Your task to perform on an android device: turn on showing notifications on the lock screen Image 0: 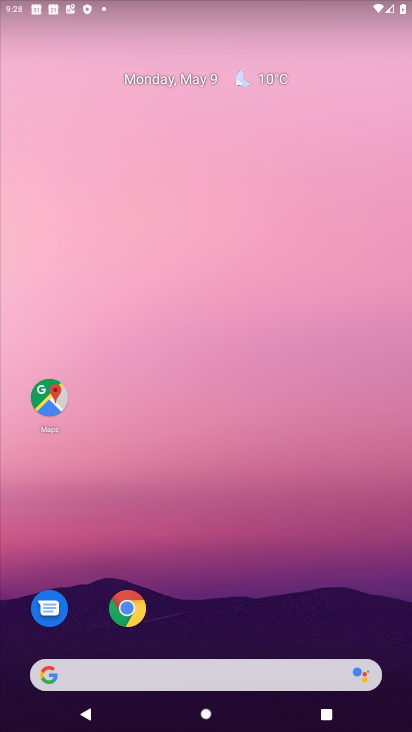
Step 0: drag from (369, 557) to (391, 68)
Your task to perform on an android device: turn on showing notifications on the lock screen Image 1: 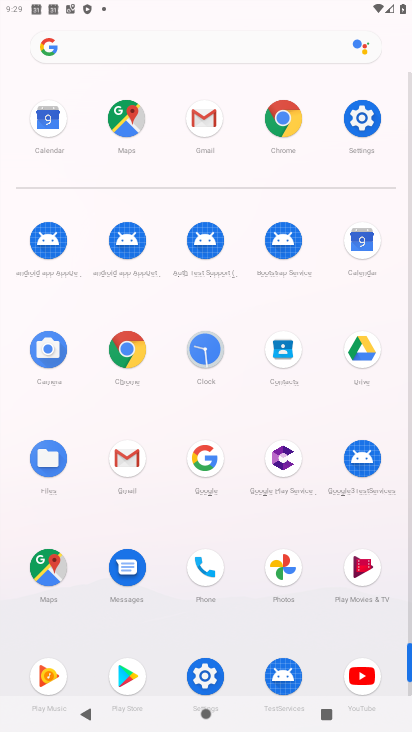
Step 1: click (351, 127)
Your task to perform on an android device: turn on showing notifications on the lock screen Image 2: 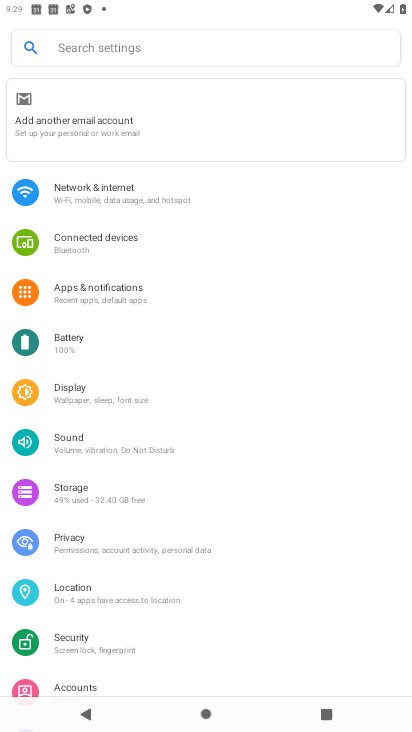
Step 2: click (104, 292)
Your task to perform on an android device: turn on showing notifications on the lock screen Image 3: 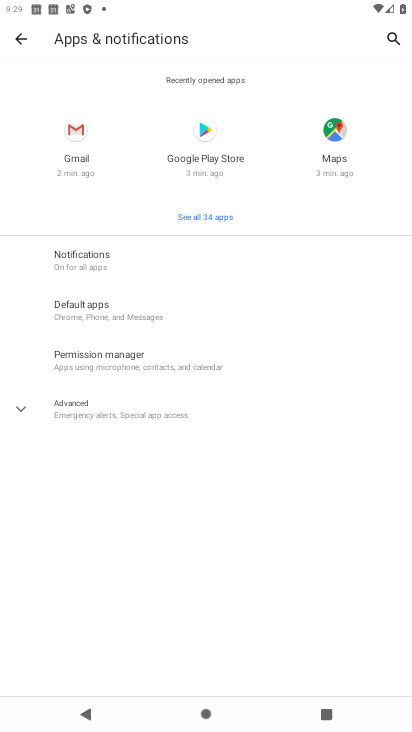
Step 3: click (84, 265)
Your task to perform on an android device: turn on showing notifications on the lock screen Image 4: 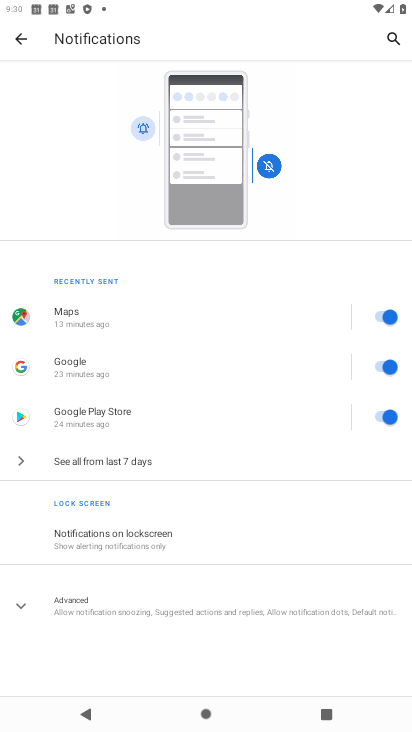
Step 4: click (96, 546)
Your task to perform on an android device: turn on showing notifications on the lock screen Image 5: 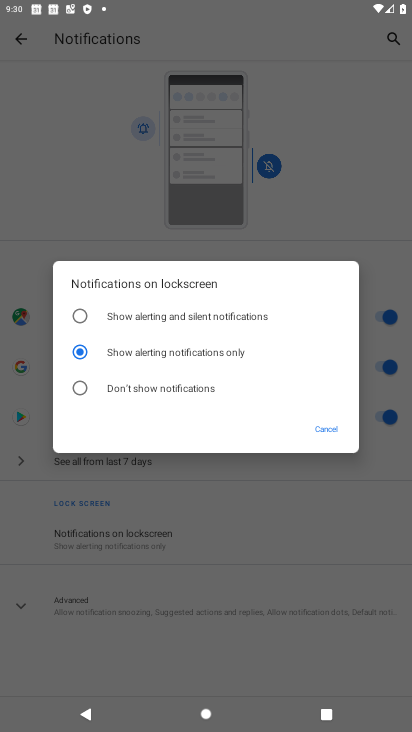
Step 5: task complete